Your task to perform on an android device: make emails show in primary in the gmail app Image 0: 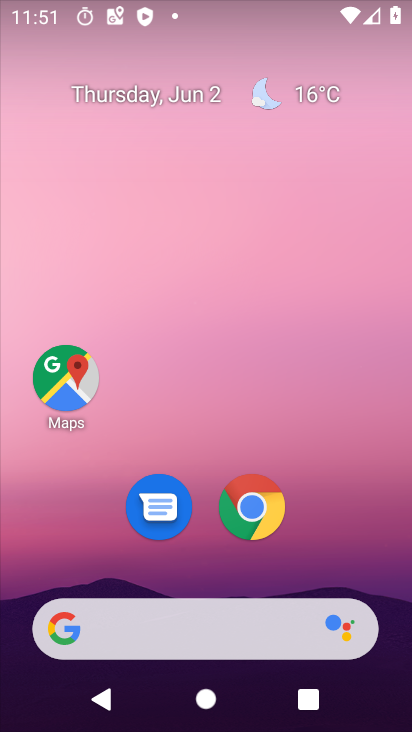
Step 0: drag from (391, 635) to (152, 119)
Your task to perform on an android device: make emails show in primary in the gmail app Image 1: 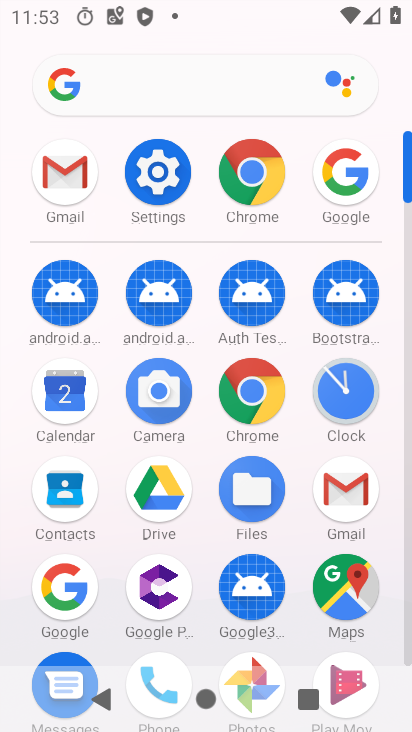
Step 1: click (347, 509)
Your task to perform on an android device: make emails show in primary in the gmail app Image 2: 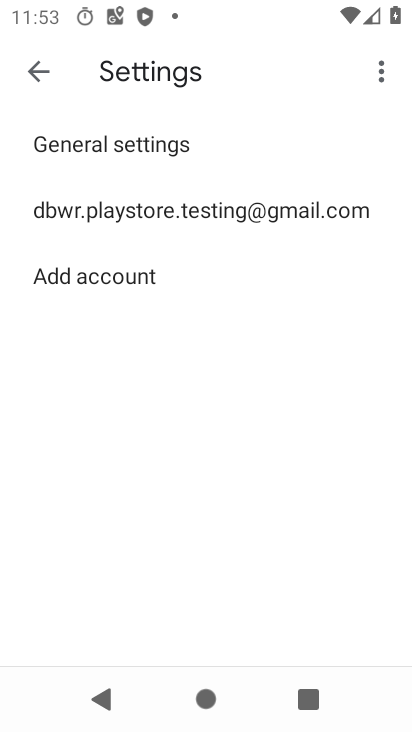
Step 2: task complete